Your task to perform on an android device: Open maps Image 0: 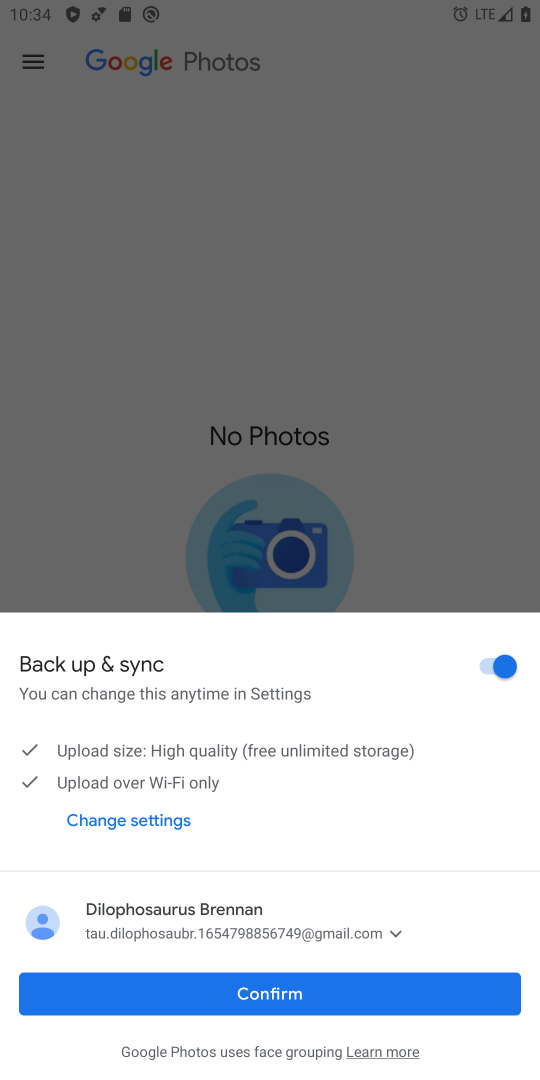
Step 0: press back button
Your task to perform on an android device: Open maps Image 1: 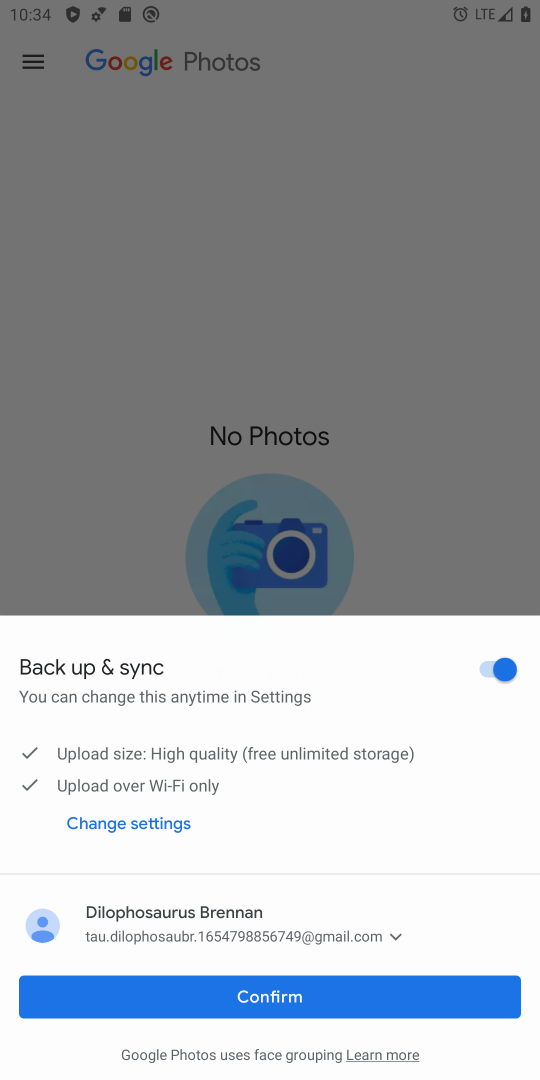
Step 1: press home button
Your task to perform on an android device: Open maps Image 2: 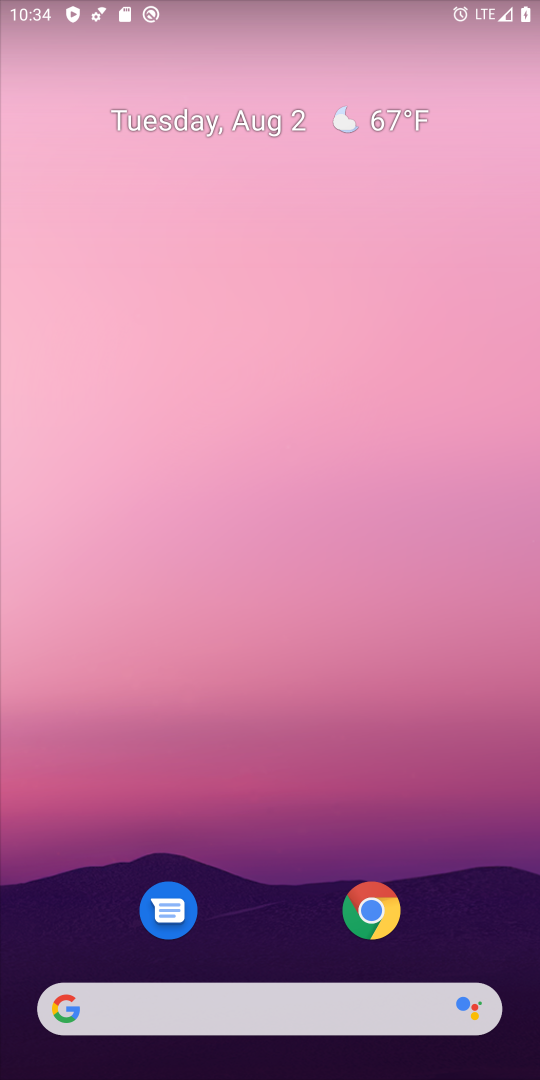
Step 2: drag from (248, 950) to (321, 229)
Your task to perform on an android device: Open maps Image 3: 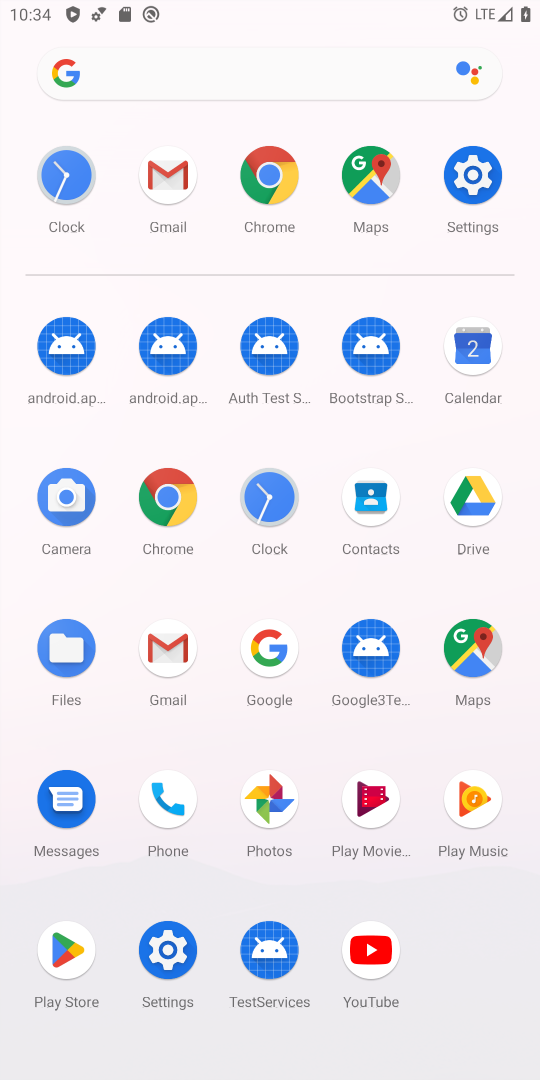
Step 3: click (383, 173)
Your task to perform on an android device: Open maps Image 4: 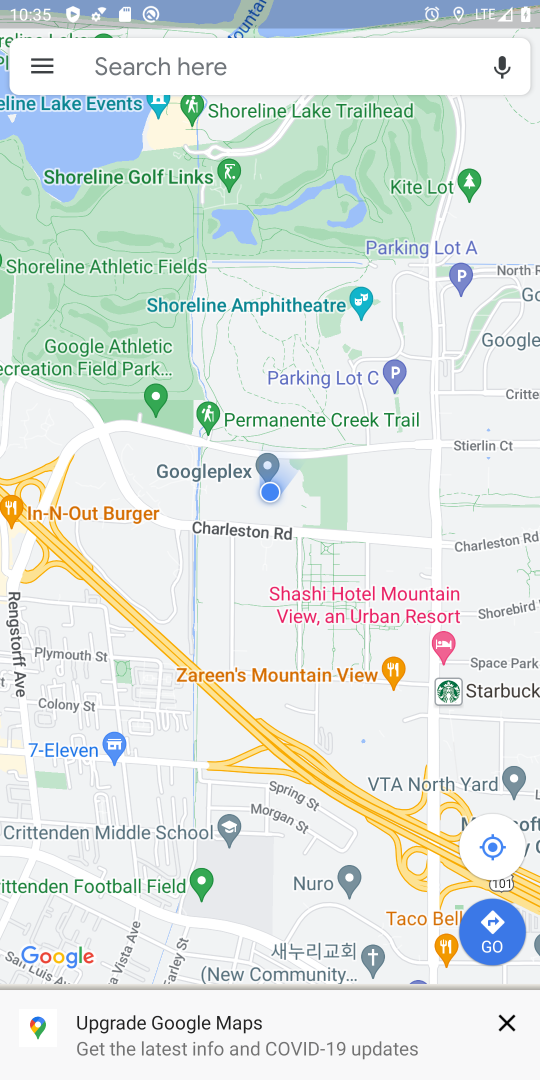
Step 4: task complete